Your task to perform on an android device: Open Google Maps and go to "Timeline" Image 0: 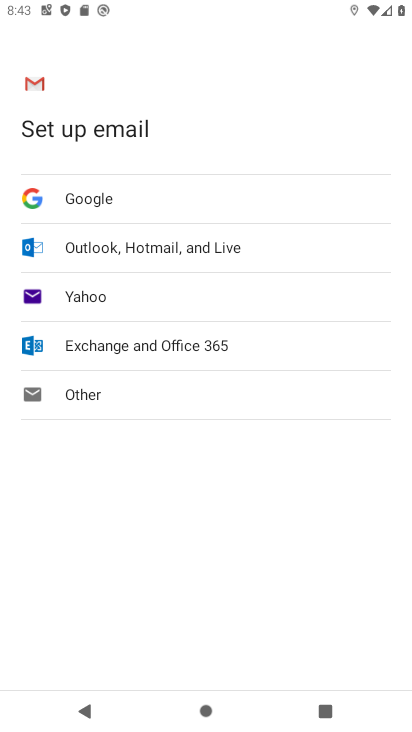
Step 0: press home button
Your task to perform on an android device: Open Google Maps and go to "Timeline" Image 1: 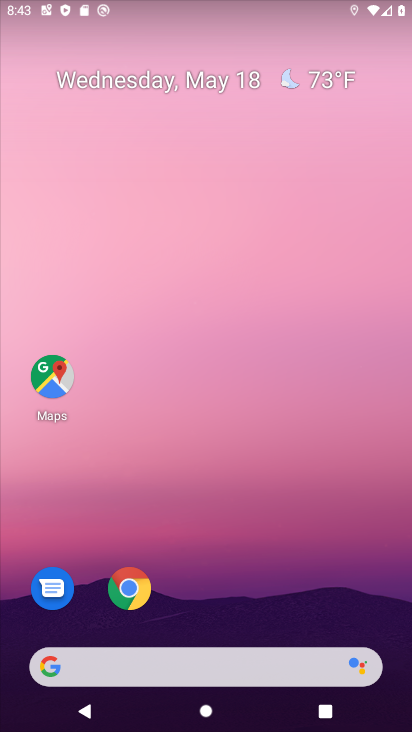
Step 1: drag from (344, 621) to (350, 226)
Your task to perform on an android device: Open Google Maps and go to "Timeline" Image 2: 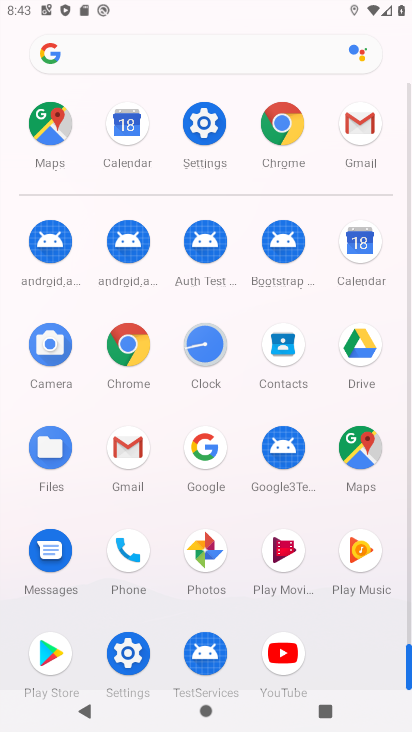
Step 2: click (41, 125)
Your task to perform on an android device: Open Google Maps and go to "Timeline" Image 3: 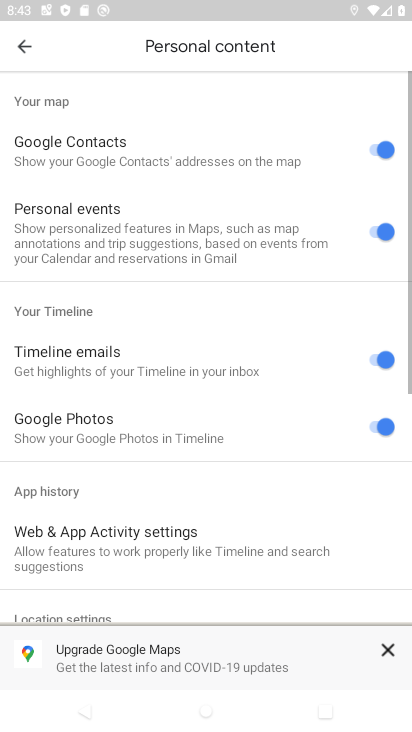
Step 3: click (26, 49)
Your task to perform on an android device: Open Google Maps and go to "Timeline" Image 4: 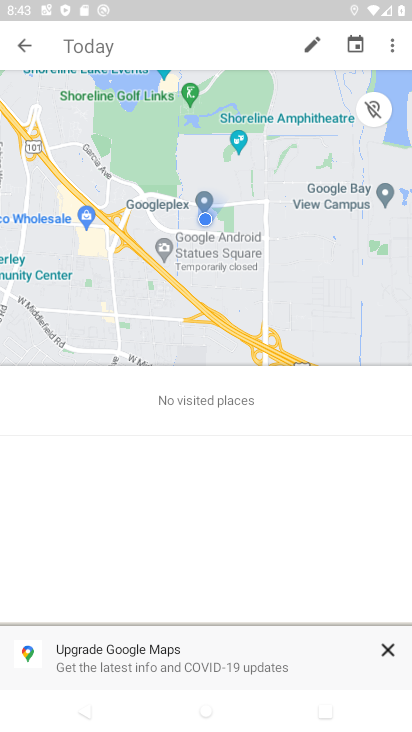
Step 4: click (18, 47)
Your task to perform on an android device: Open Google Maps and go to "Timeline" Image 5: 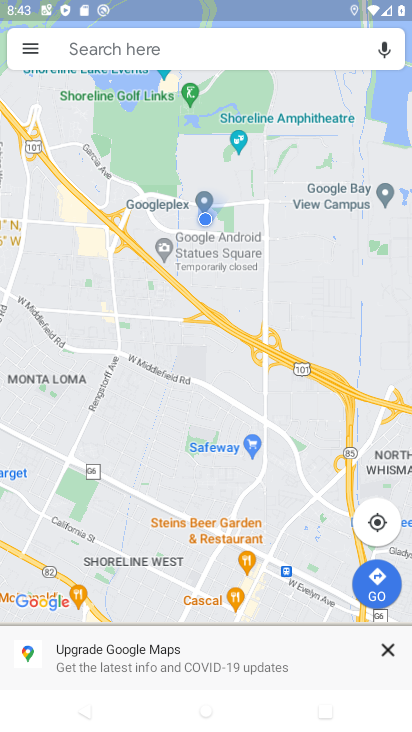
Step 5: click (35, 50)
Your task to perform on an android device: Open Google Maps and go to "Timeline" Image 6: 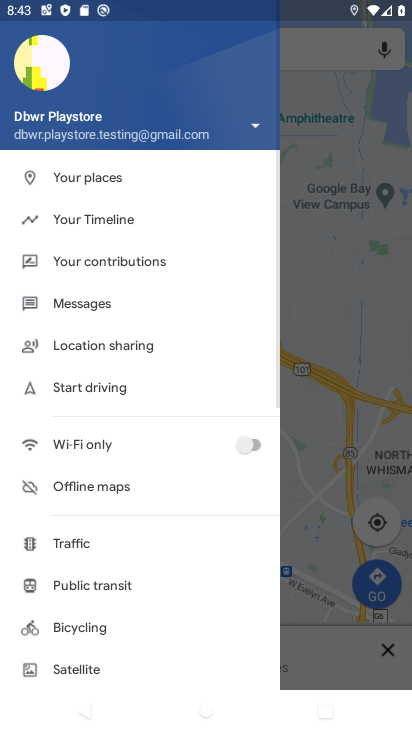
Step 6: click (94, 220)
Your task to perform on an android device: Open Google Maps and go to "Timeline" Image 7: 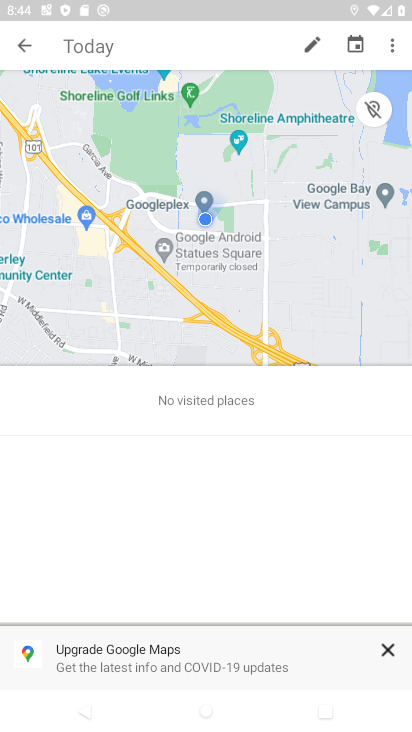
Step 7: task complete